Your task to perform on an android device: change keyboard looks Image 0: 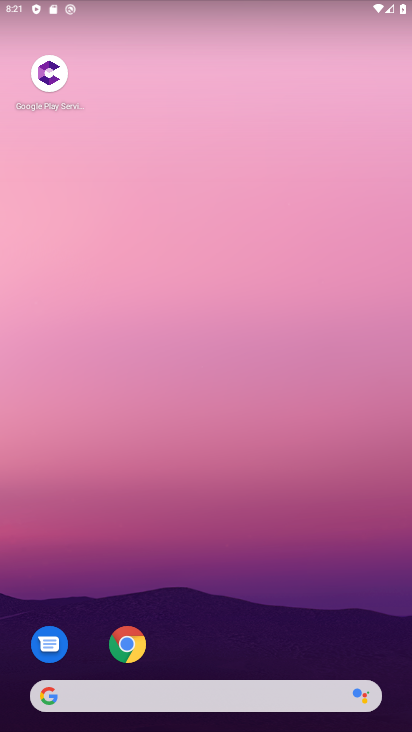
Step 0: drag from (199, 633) to (220, 180)
Your task to perform on an android device: change keyboard looks Image 1: 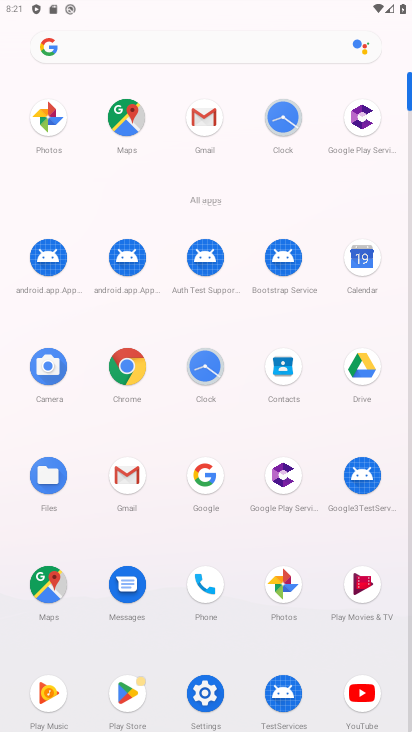
Step 1: click (207, 681)
Your task to perform on an android device: change keyboard looks Image 2: 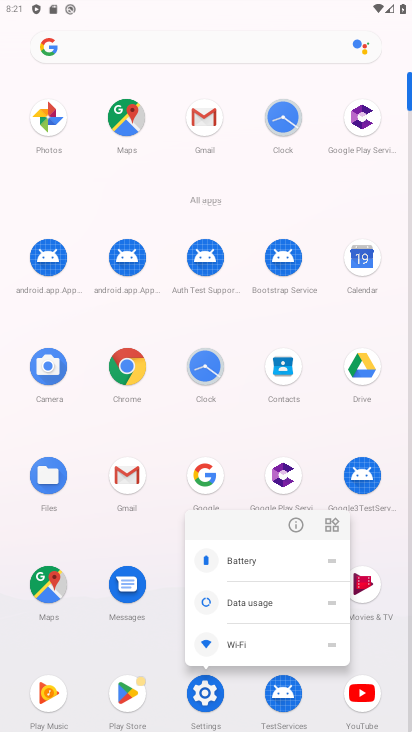
Step 2: click (289, 517)
Your task to perform on an android device: change keyboard looks Image 3: 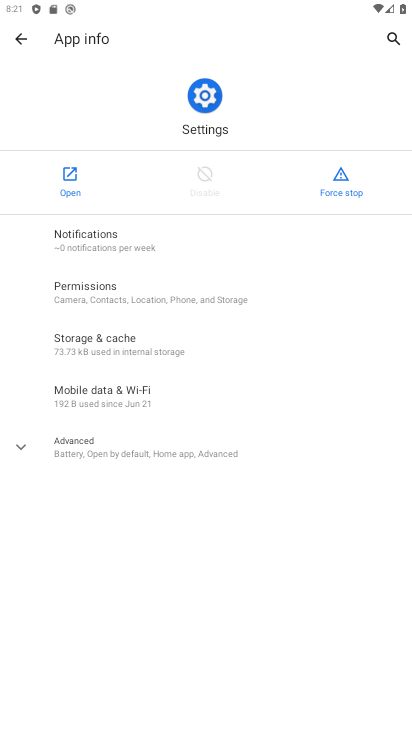
Step 3: click (77, 173)
Your task to perform on an android device: change keyboard looks Image 4: 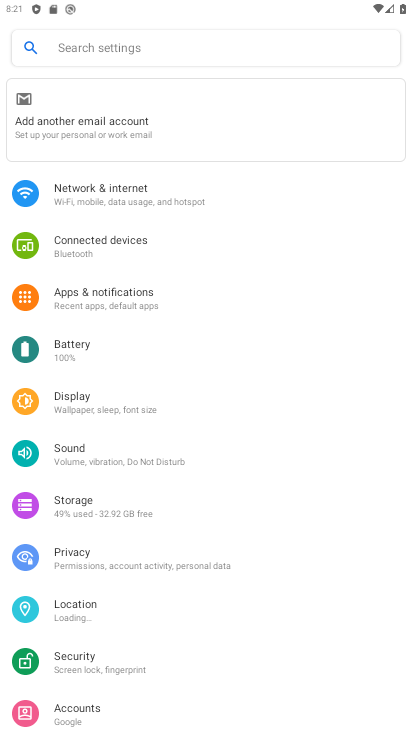
Step 4: drag from (214, 550) to (224, 194)
Your task to perform on an android device: change keyboard looks Image 5: 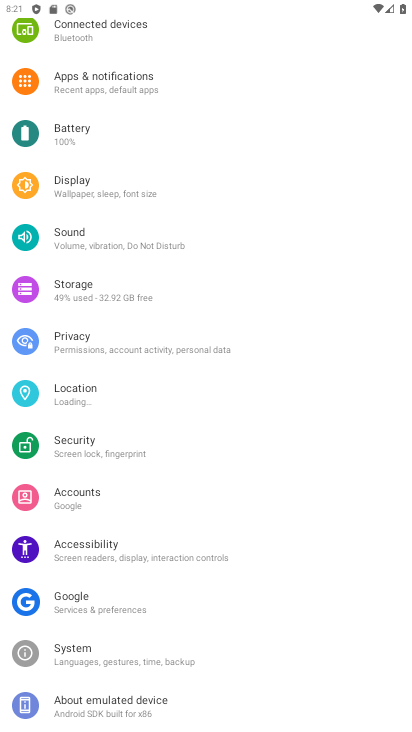
Step 5: drag from (167, 648) to (174, 486)
Your task to perform on an android device: change keyboard looks Image 6: 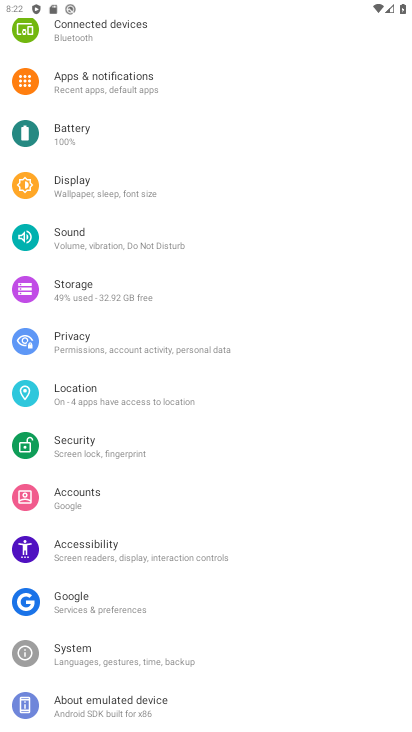
Step 6: click (148, 656)
Your task to perform on an android device: change keyboard looks Image 7: 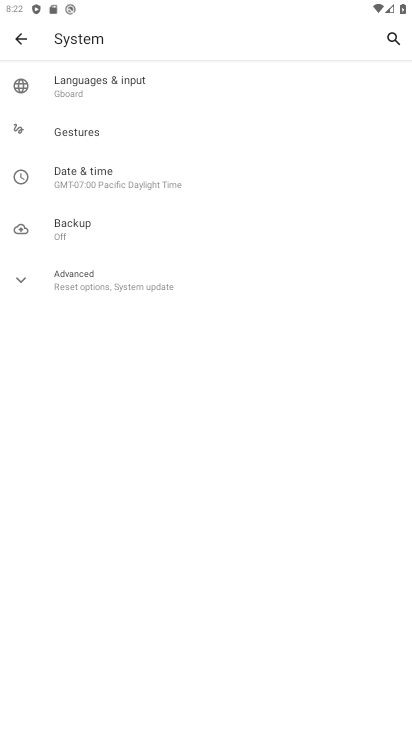
Step 7: drag from (302, 690) to (225, 348)
Your task to perform on an android device: change keyboard looks Image 8: 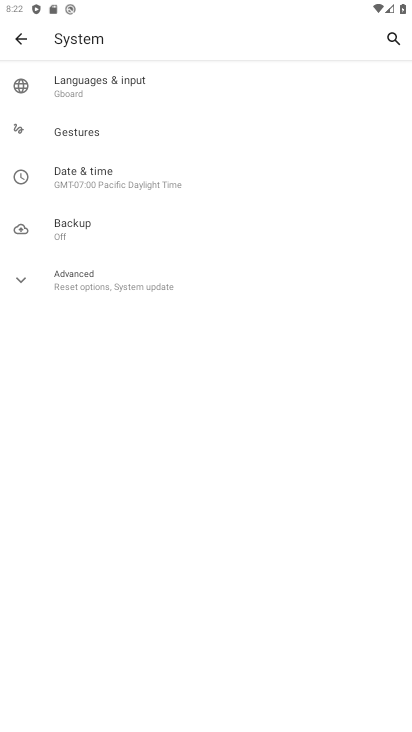
Step 8: click (111, 293)
Your task to perform on an android device: change keyboard looks Image 9: 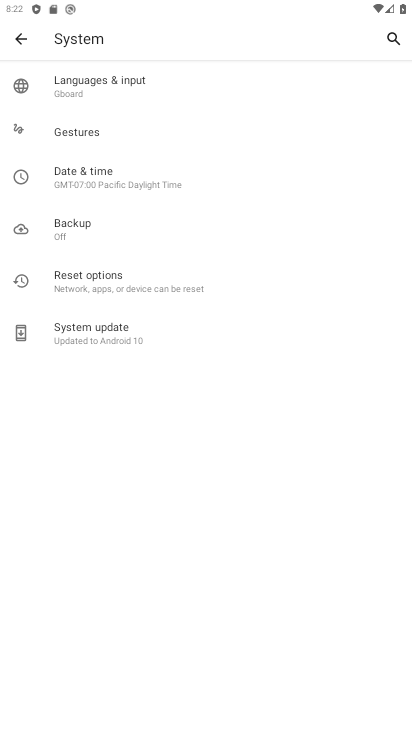
Step 9: click (121, 89)
Your task to perform on an android device: change keyboard looks Image 10: 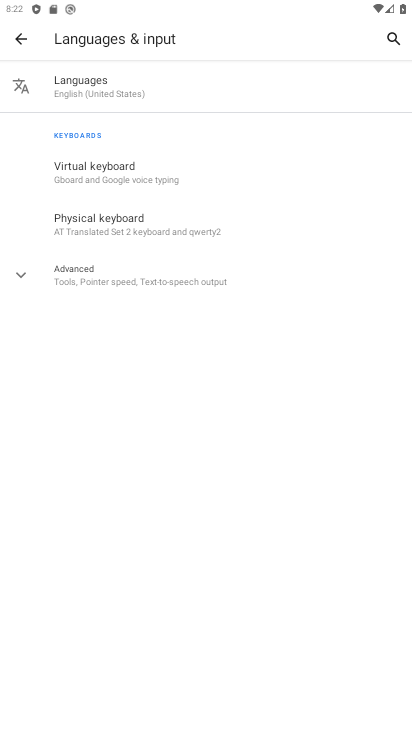
Step 10: click (120, 166)
Your task to perform on an android device: change keyboard looks Image 11: 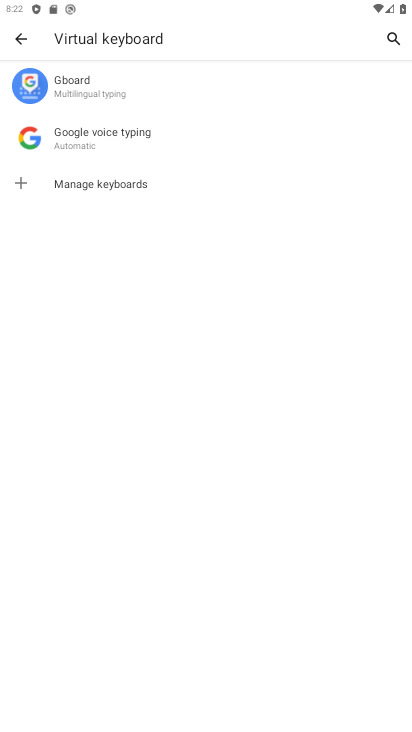
Step 11: click (56, 99)
Your task to perform on an android device: change keyboard looks Image 12: 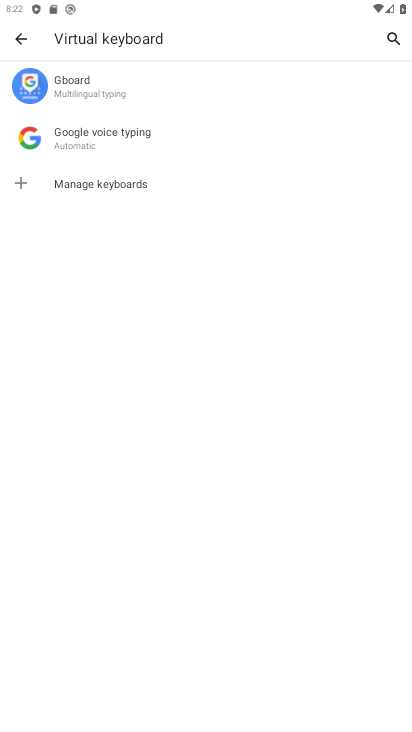
Step 12: drag from (230, 499) to (240, 176)
Your task to perform on an android device: change keyboard looks Image 13: 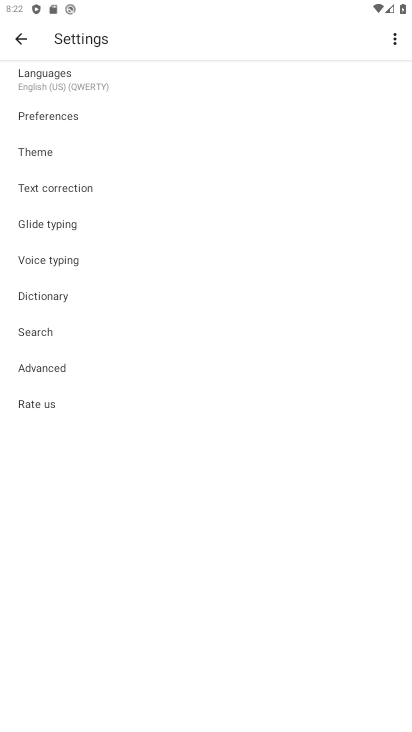
Step 13: click (57, 164)
Your task to perform on an android device: change keyboard looks Image 14: 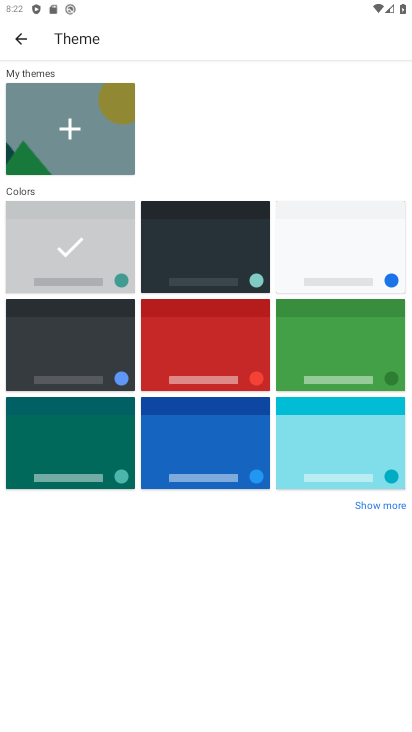
Step 14: click (207, 224)
Your task to perform on an android device: change keyboard looks Image 15: 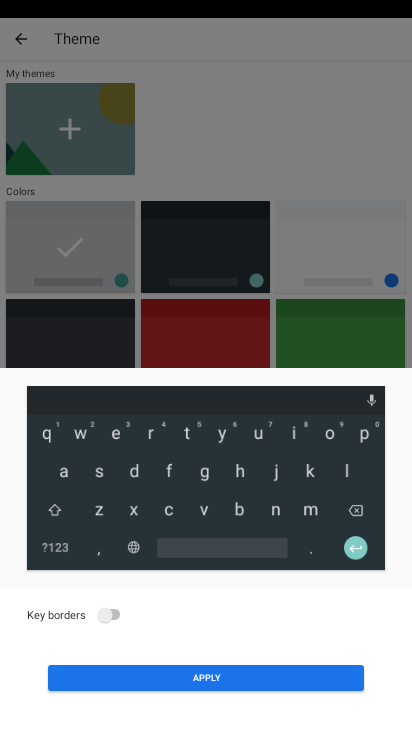
Step 15: click (238, 668)
Your task to perform on an android device: change keyboard looks Image 16: 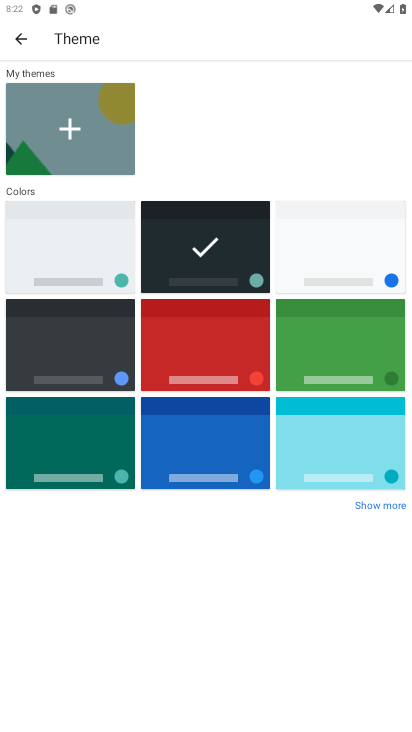
Step 16: task complete